Your task to perform on an android device: allow notifications from all sites in the chrome app Image 0: 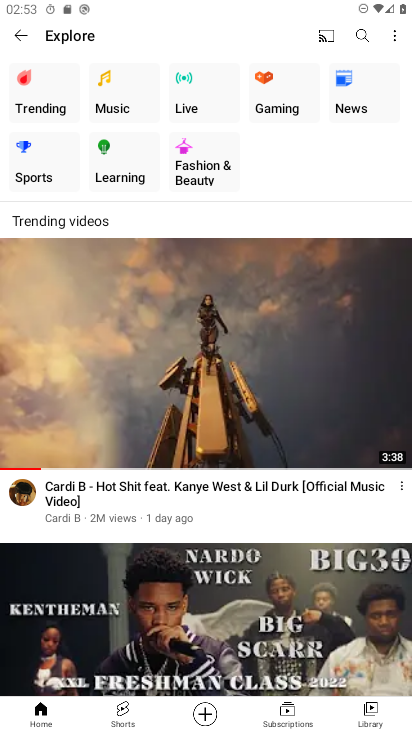
Step 0: press home button
Your task to perform on an android device: allow notifications from all sites in the chrome app Image 1: 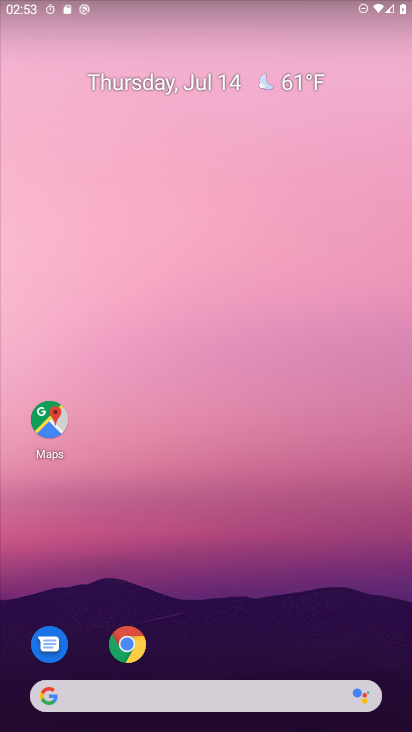
Step 1: drag from (247, 352) to (255, 0)
Your task to perform on an android device: allow notifications from all sites in the chrome app Image 2: 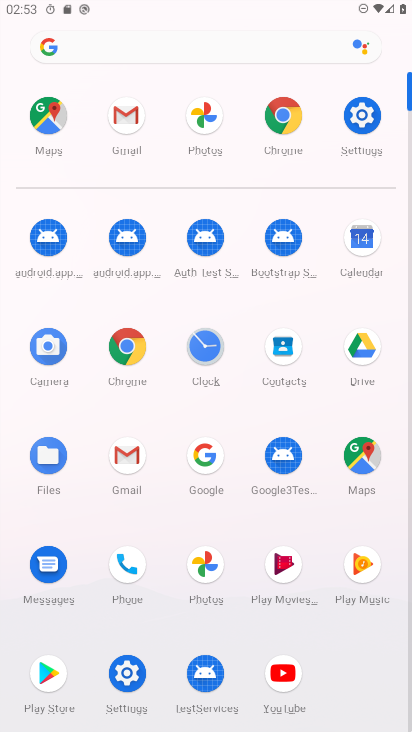
Step 2: click (129, 346)
Your task to perform on an android device: allow notifications from all sites in the chrome app Image 3: 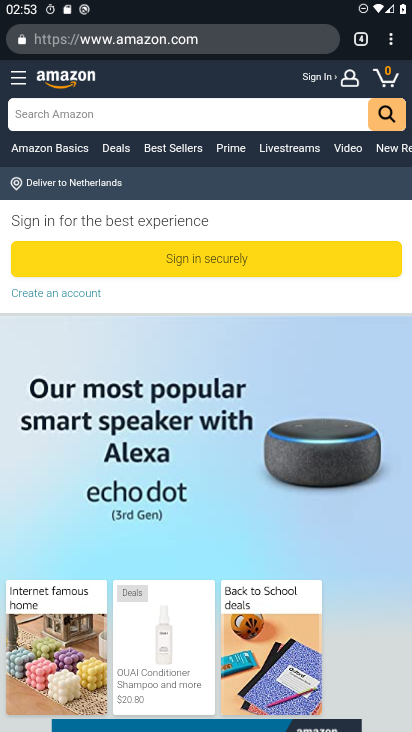
Step 3: drag from (392, 30) to (279, 479)
Your task to perform on an android device: allow notifications from all sites in the chrome app Image 4: 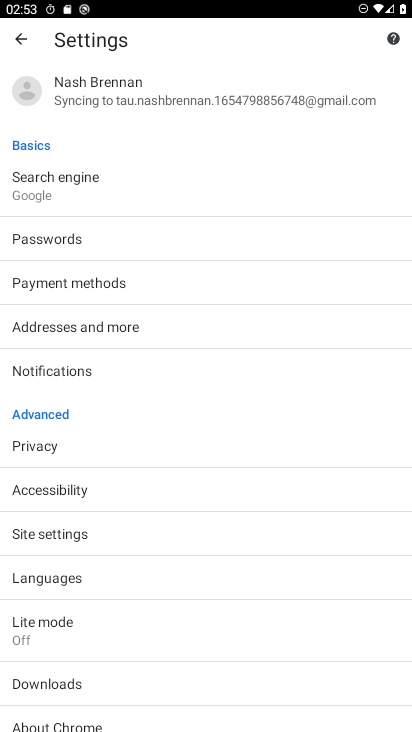
Step 4: click (63, 380)
Your task to perform on an android device: allow notifications from all sites in the chrome app Image 5: 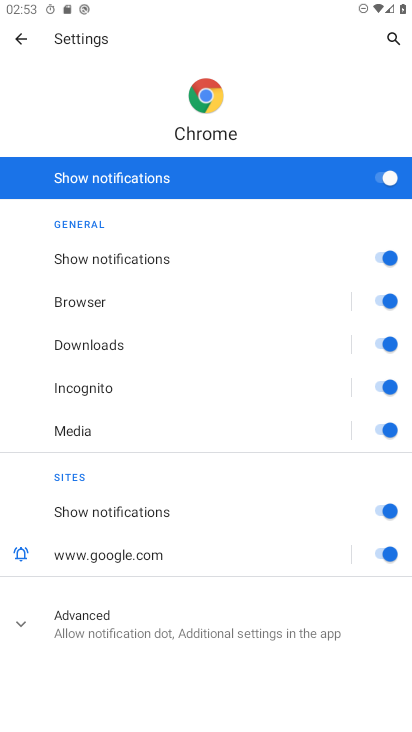
Step 5: task complete